Your task to perform on an android device: Go to Android settings Image 0: 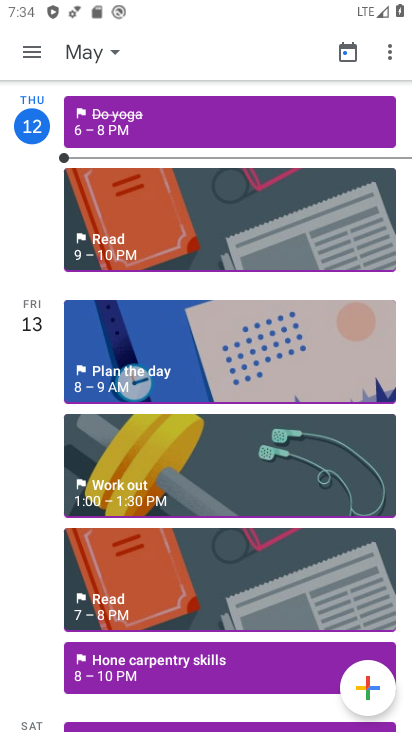
Step 0: press home button
Your task to perform on an android device: Go to Android settings Image 1: 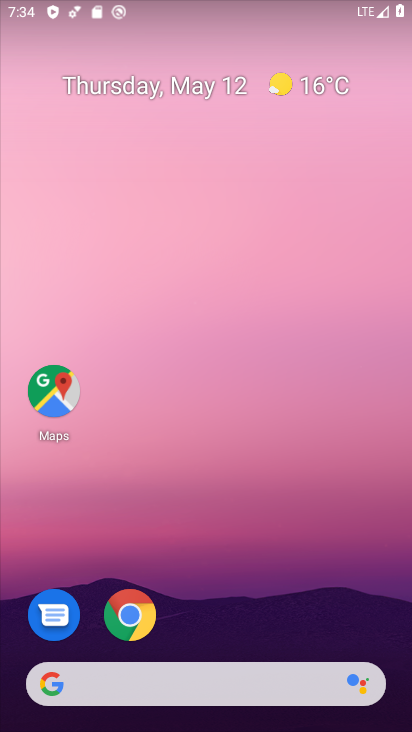
Step 1: drag from (261, 592) to (194, 65)
Your task to perform on an android device: Go to Android settings Image 2: 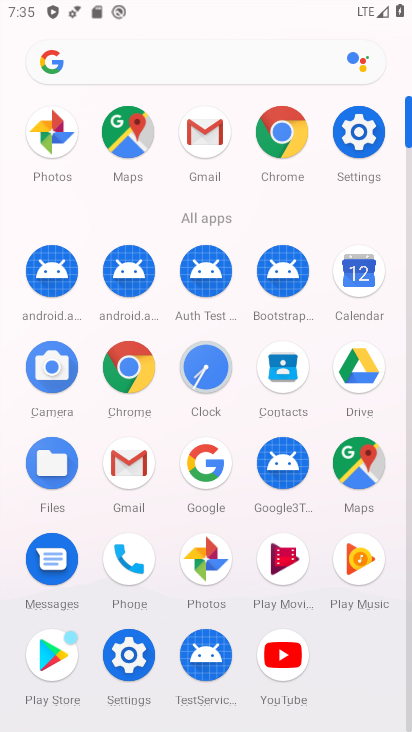
Step 2: click (361, 139)
Your task to perform on an android device: Go to Android settings Image 3: 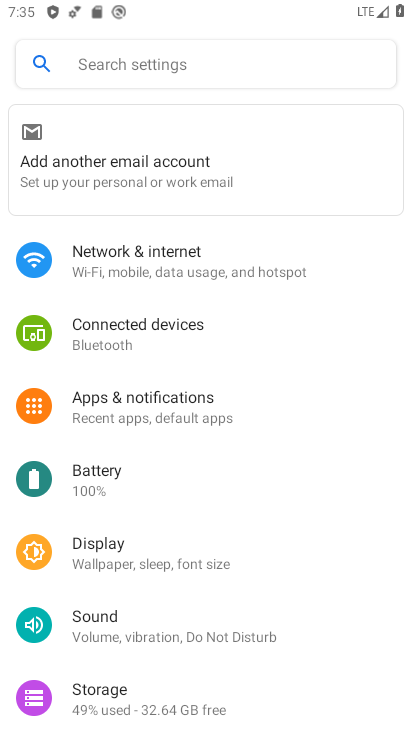
Step 3: drag from (243, 578) to (283, 187)
Your task to perform on an android device: Go to Android settings Image 4: 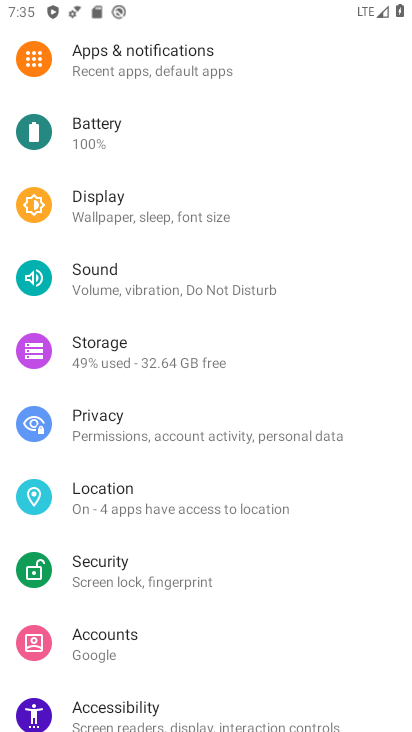
Step 4: drag from (220, 586) to (184, 185)
Your task to perform on an android device: Go to Android settings Image 5: 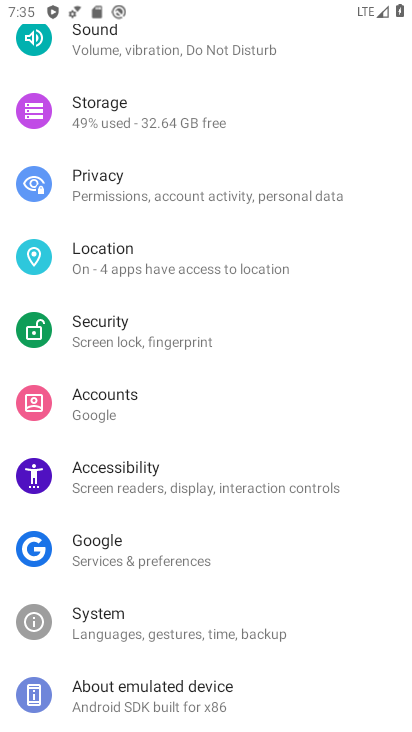
Step 5: click (184, 690)
Your task to perform on an android device: Go to Android settings Image 6: 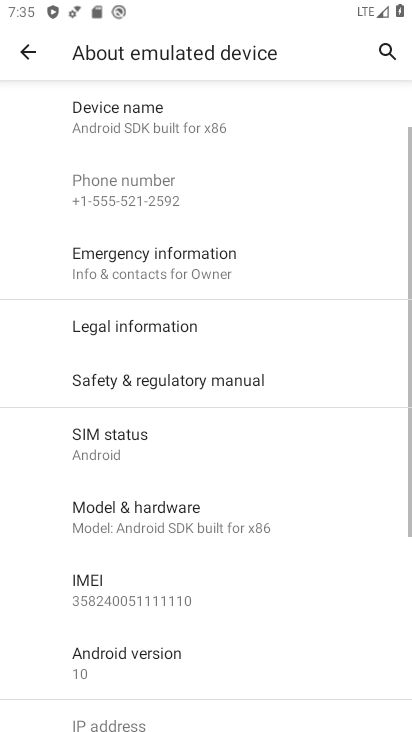
Step 6: task complete